Your task to perform on an android device: Go to Google maps Image 0: 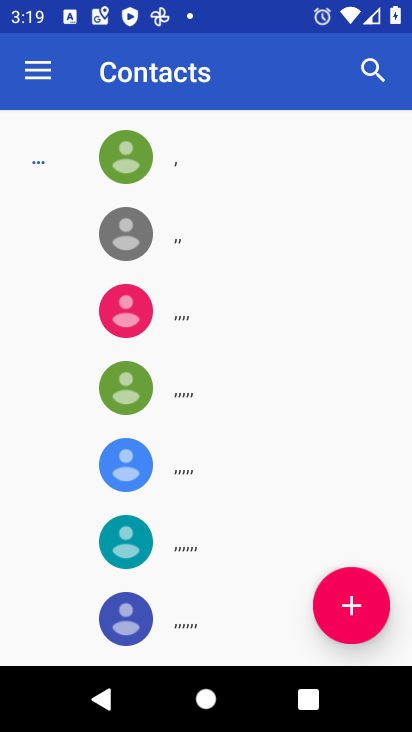
Step 0: press home button
Your task to perform on an android device: Go to Google maps Image 1: 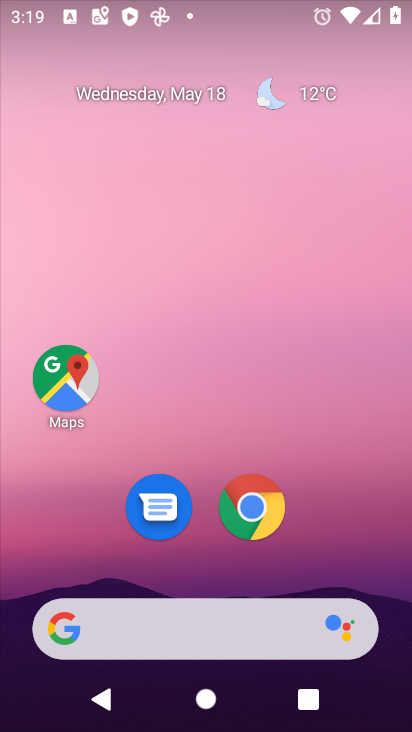
Step 1: click (62, 378)
Your task to perform on an android device: Go to Google maps Image 2: 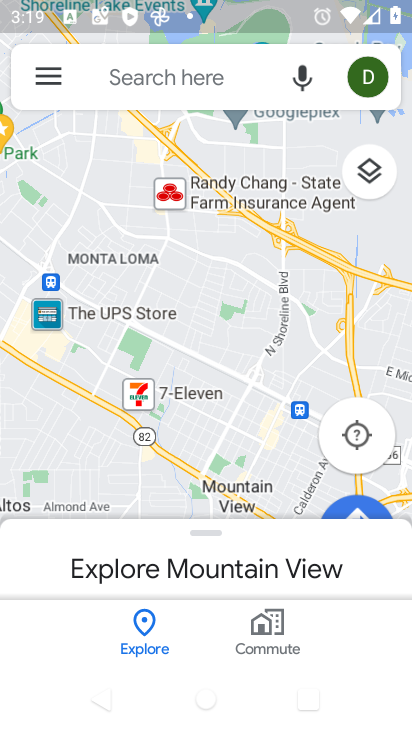
Step 2: task complete